Your task to perform on an android device: delete the emails in spam in the gmail app Image 0: 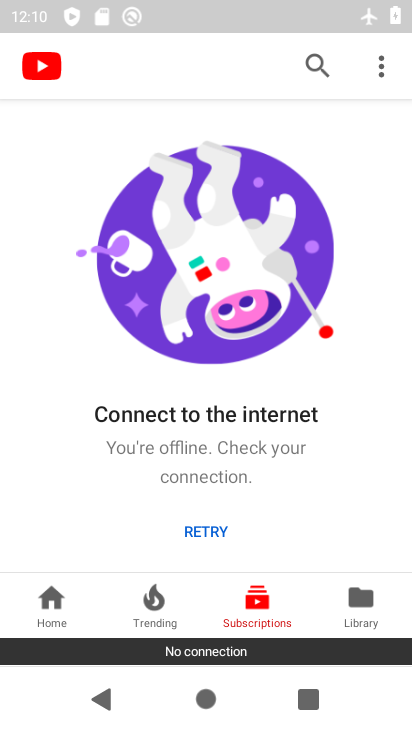
Step 0: press home button
Your task to perform on an android device: delete the emails in spam in the gmail app Image 1: 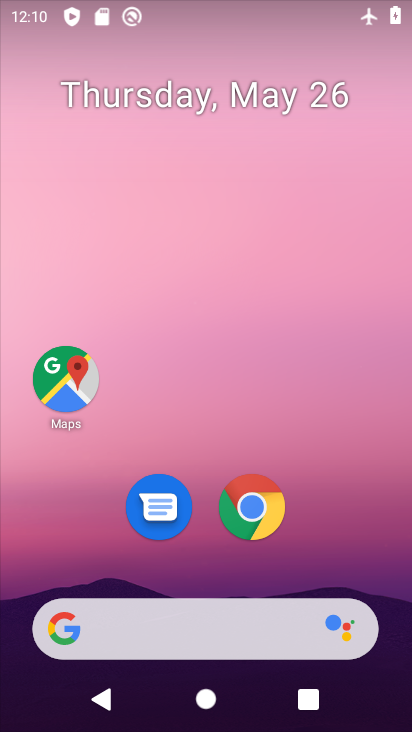
Step 1: drag from (227, 588) to (196, 205)
Your task to perform on an android device: delete the emails in spam in the gmail app Image 2: 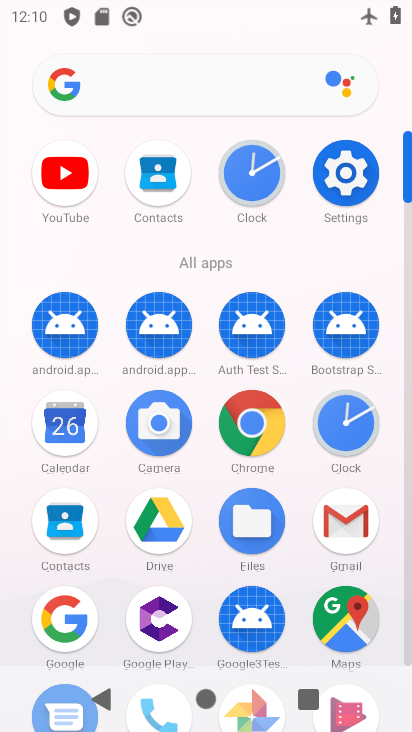
Step 2: click (330, 527)
Your task to perform on an android device: delete the emails in spam in the gmail app Image 3: 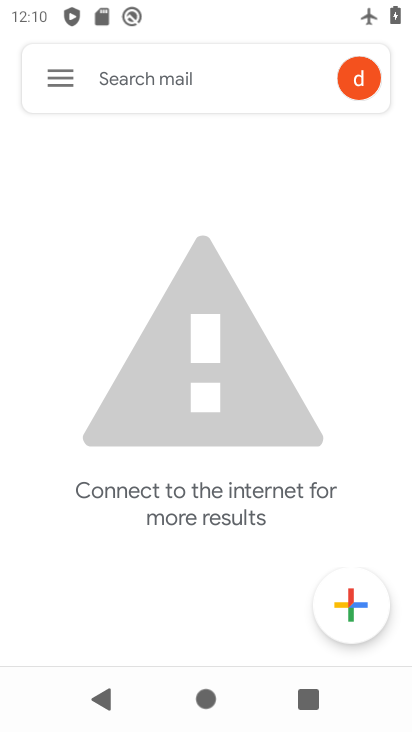
Step 3: click (50, 63)
Your task to perform on an android device: delete the emails in spam in the gmail app Image 4: 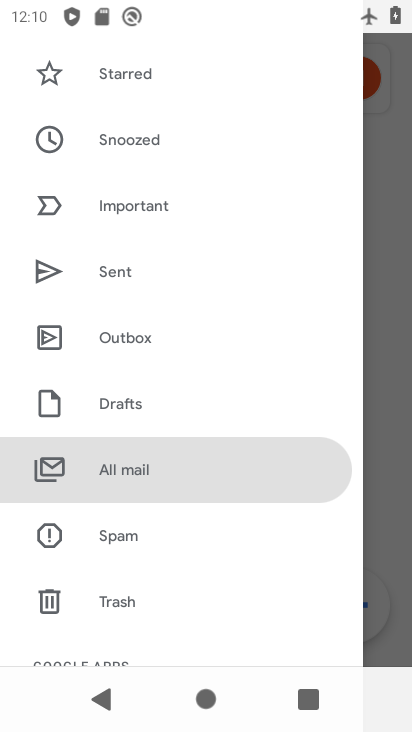
Step 4: click (139, 534)
Your task to perform on an android device: delete the emails in spam in the gmail app Image 5: 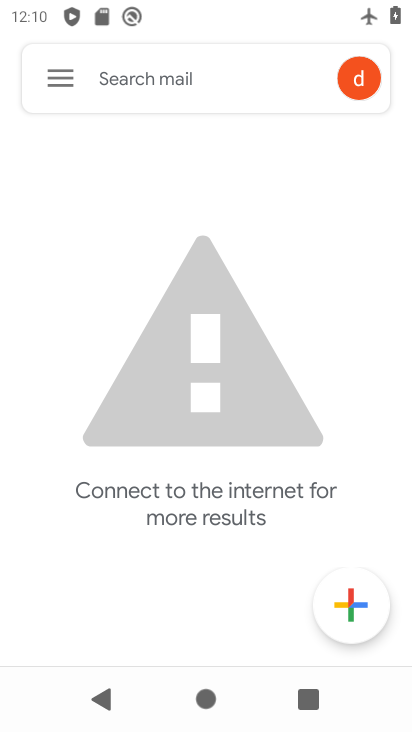
Step 5: click (67, 86)
Your task to perform on an android device: delete the emails in spam in the gmail app Image 6: 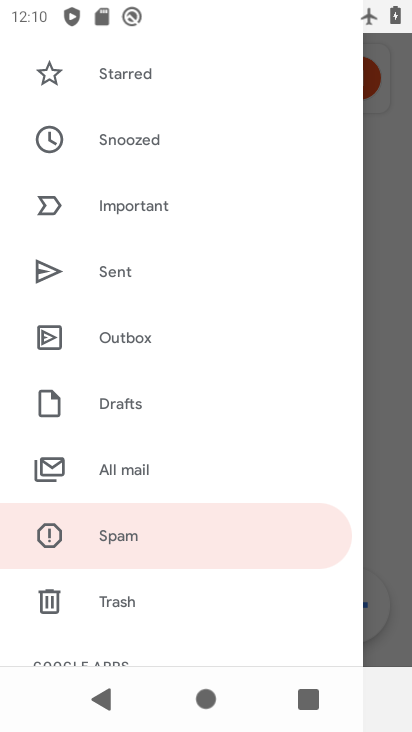
Step 6: click (159, 534)
Your task to perform on an android device: delete the emails in spam in the gmail app Image 7: 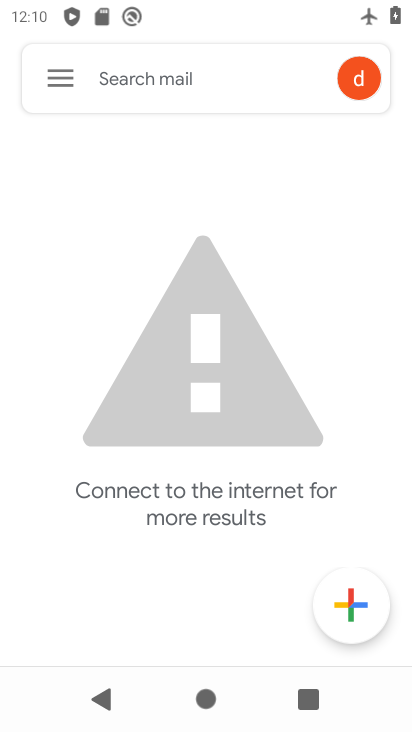
Step 7: task complete